Your task to perform on an android device: toggle location history Image 0: 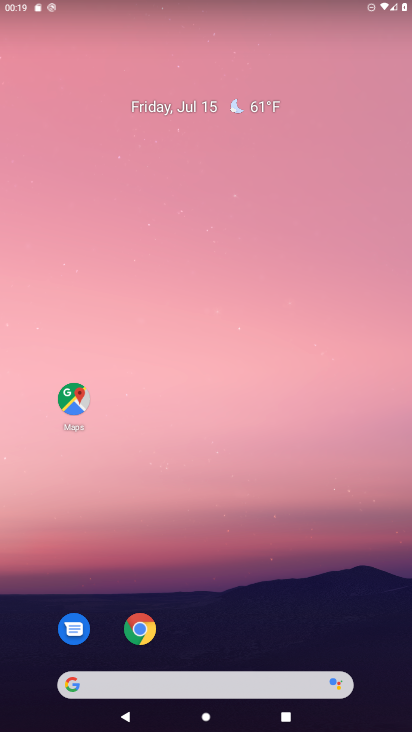
Step 0: drag from (209, 639) to (187, 105)
Your task to perform on an android device: toggle location history Image 1: 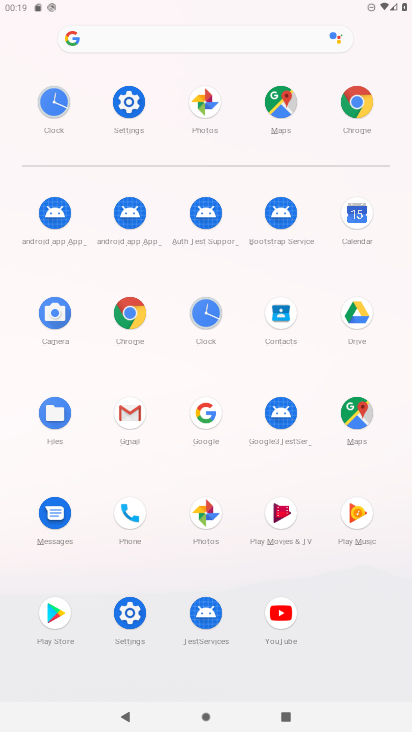
Step 1: click (136, 109)
Your task to perform on an android device: toggle location history Image 2: 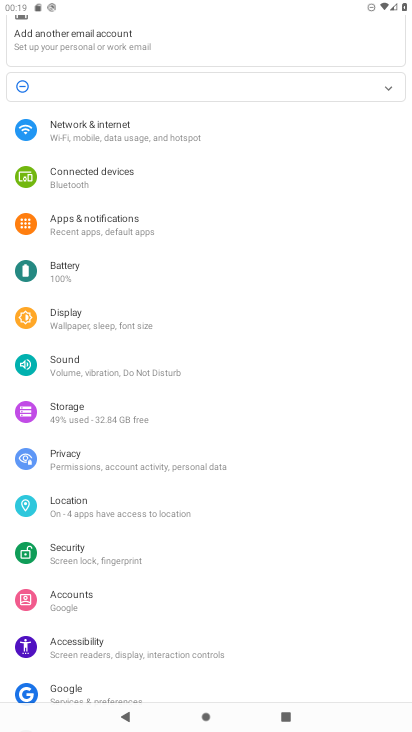
Step 2: click (83, 513)
Your task to perform on an android device: toggle location history Image 3: 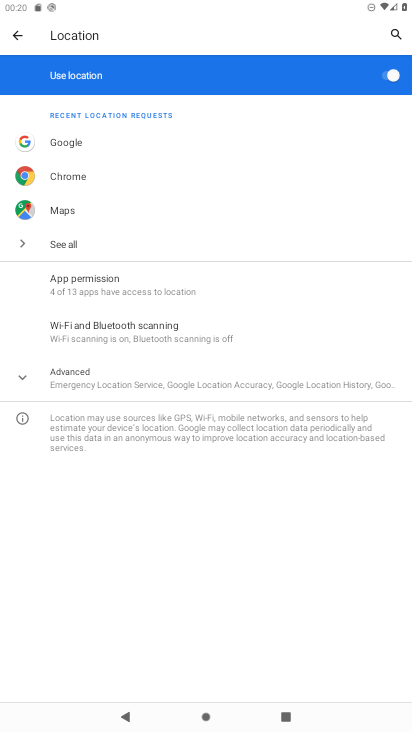
Step 3: click (164, 374)
Your task to perform on an android device: toggle location history Image 4: 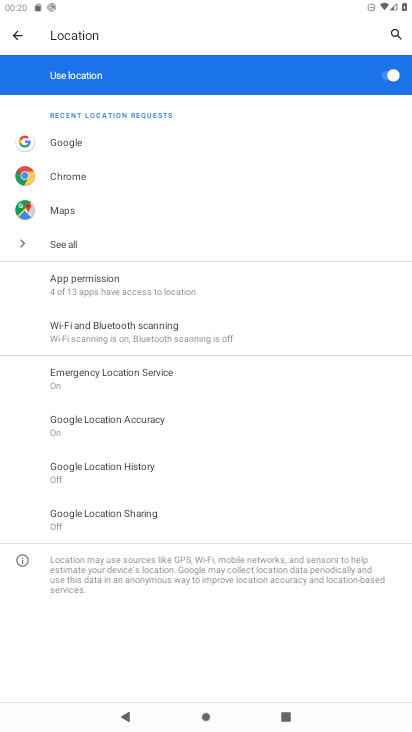
Step 4: click (200, 473)
Your task to perform on an android device: toggle location history Image 5: 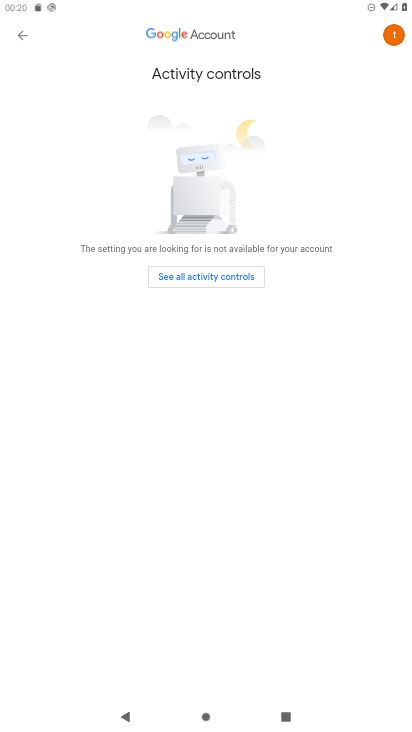
Step 5: task complete